Your task to perform on an android device: check battery use Image 0: 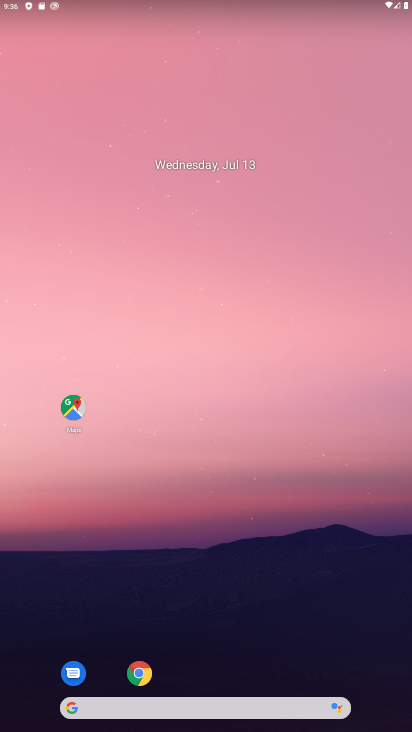
Step 0: drag from (162, 697) to (207, 317)
Your task to perform on an android device: check battery use Image 1: 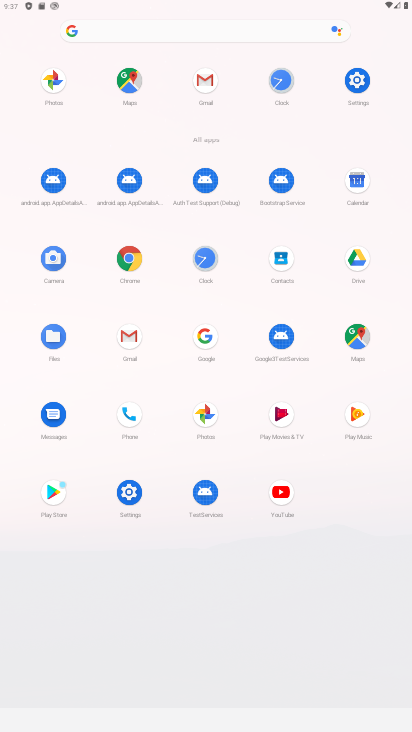
Step 1: click (362, 83)
Your task to perform on an android device: check battery use Image 2: 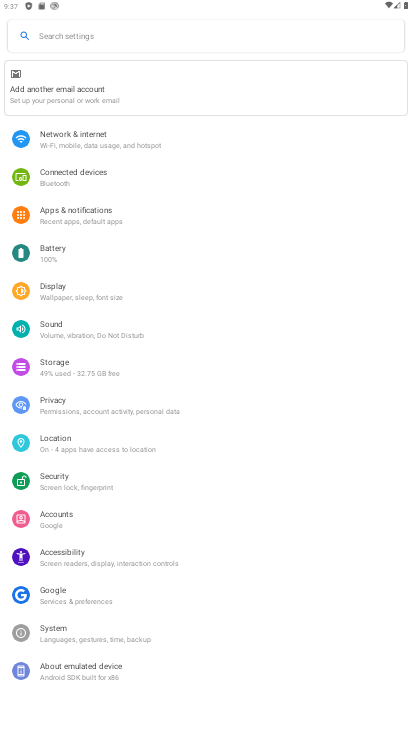
Step 2: click (54, 253)
Your task to perform on an android device: check battery use Image 3: 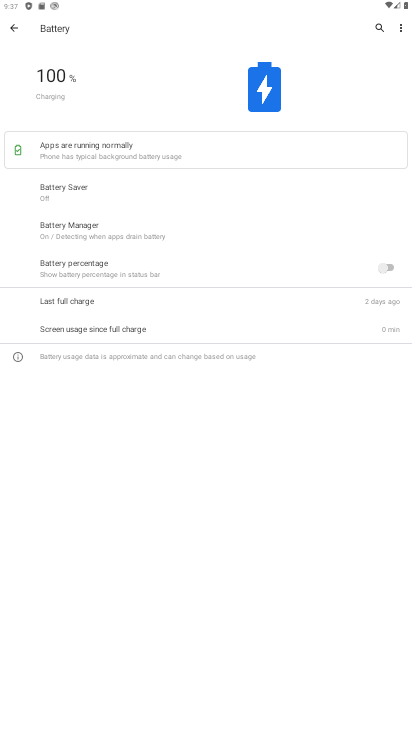
Step 3: click (400, 29)
Your task to perform on an android device: check battery use Image 4: 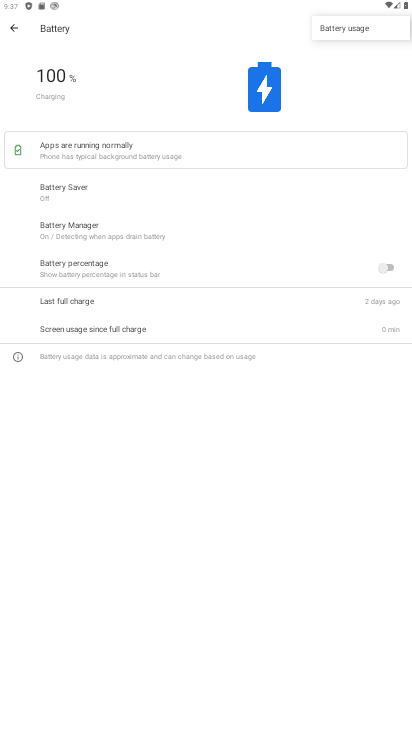
Step 4: click (347, 29)
Your task to perform on an android device: check battery use Image 5: 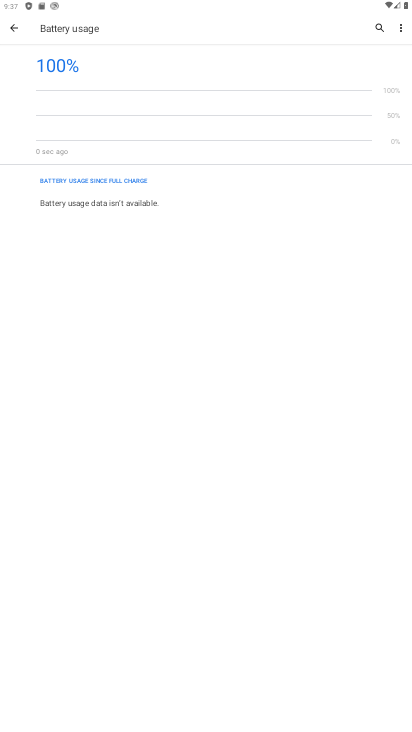
Step 5: task complete